Your task to perform on an android device: Show me productivity apps on the Play Store Image 0: 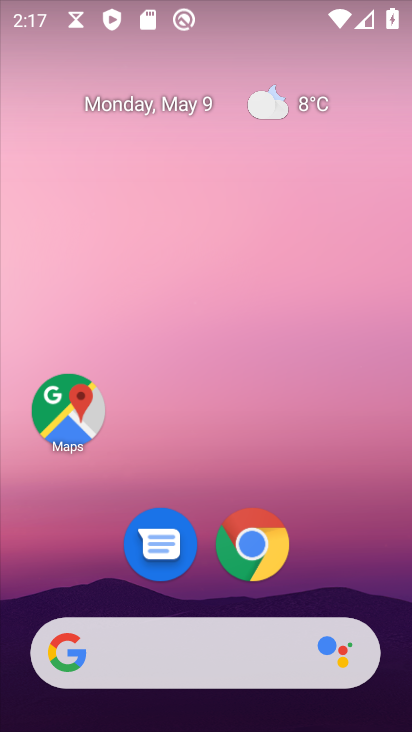
Step 0: drag from (210, 407) to (95, 134)
Your task to perform on an android device: Show me productivity apps on the Play Store Image 1: 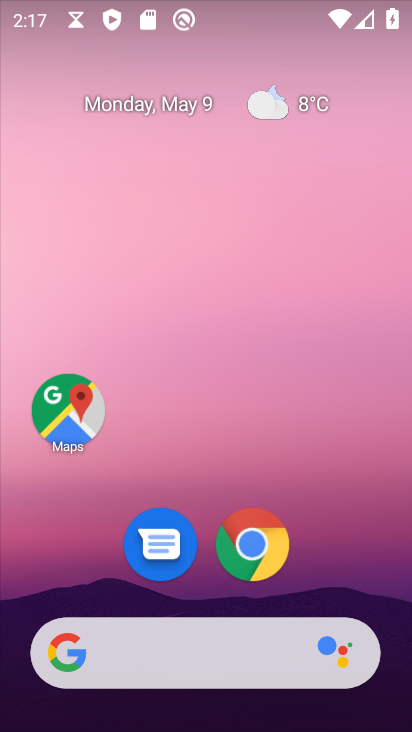
Step 1: drag from (211, 460) to (157, 56)
Your task to perform on an android device: Show me productivity apps on the Play Store Image 2: 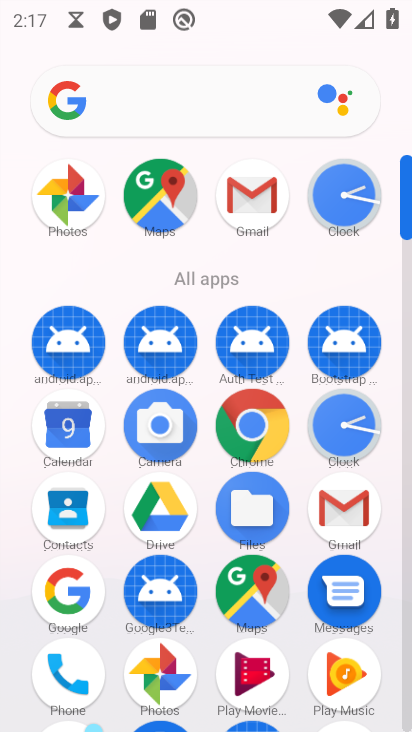
Step 2: drag from (204, 622) to (204, 366)
Your task to perform on an android device: Show me productivity apps on the Play Store Image 3: 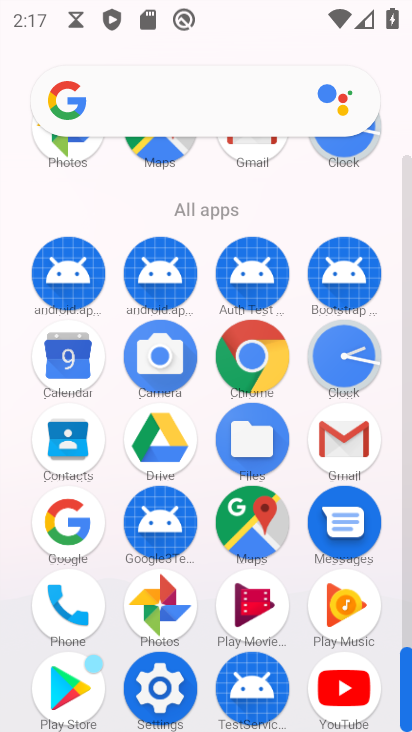
Step 3: click (64, 685)
Your task to perform on an android device: Show me productivity apps on the Play Store Image 4: 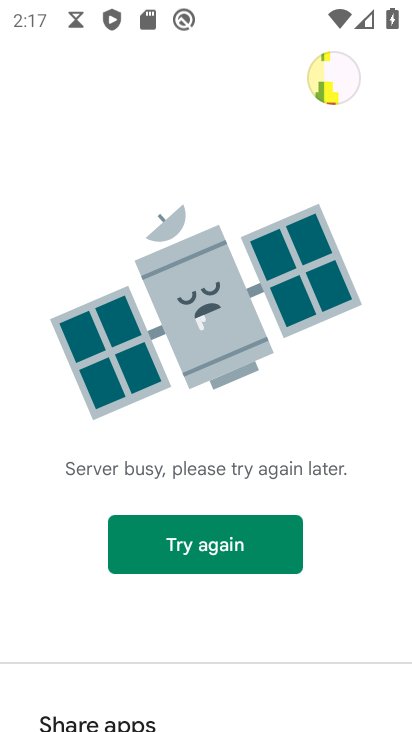
Step 4: click (186, 531)
Your task to perform on an android device: Show me productivity apps on the Play Store Image 5: 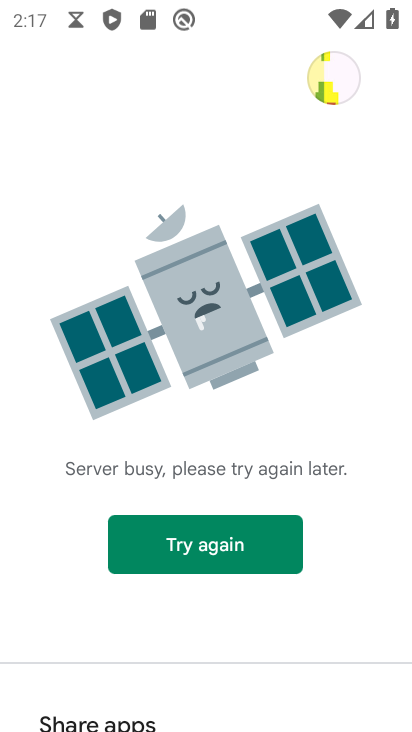
Step 5: click (186, 531)
Your task to perform on an android device: Show me productivity apps on the Play Store Image 6: 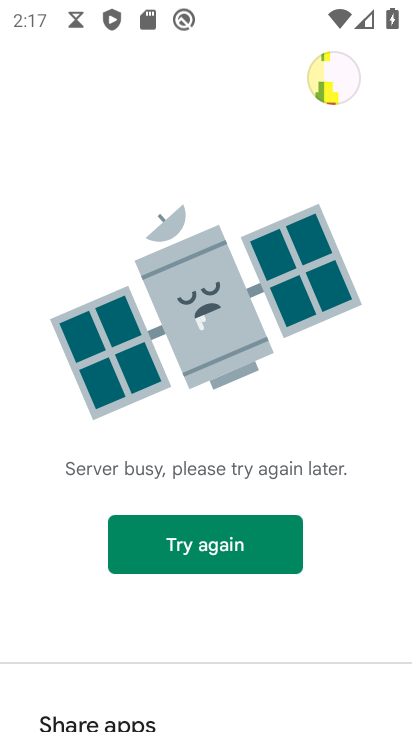
Step 6: task complete